Your task to perform on an android device: Show me the alarms in the clock app Image 0: 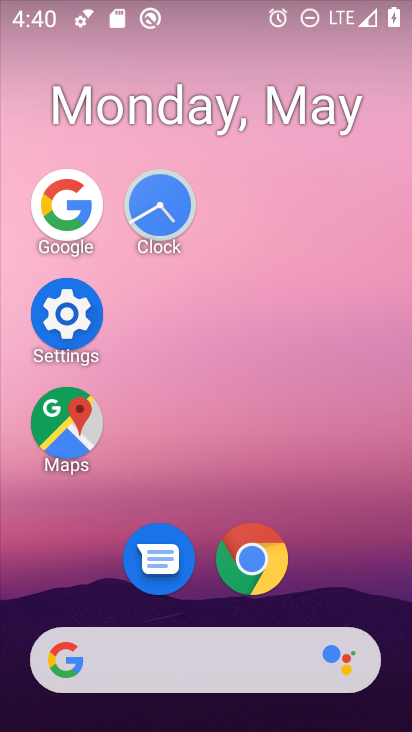
Step 0: click (170, 210)
Your task to perform on an android device: Show me the alarms in the clock app Image 1: 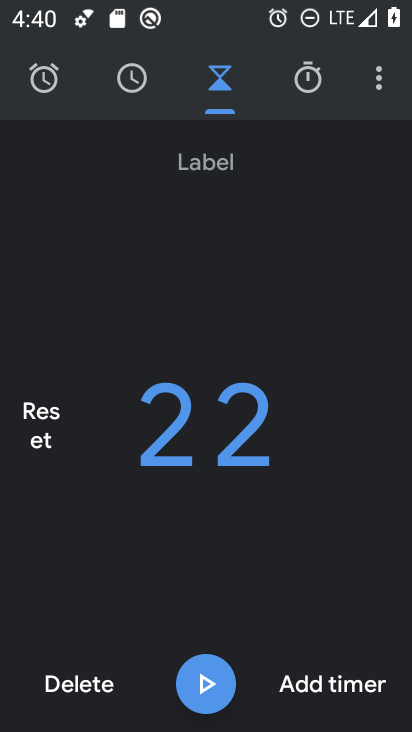
Step 1: click (60, 79)
Your task to perform on an android device: Show me the alarms in the clock app Image 2: 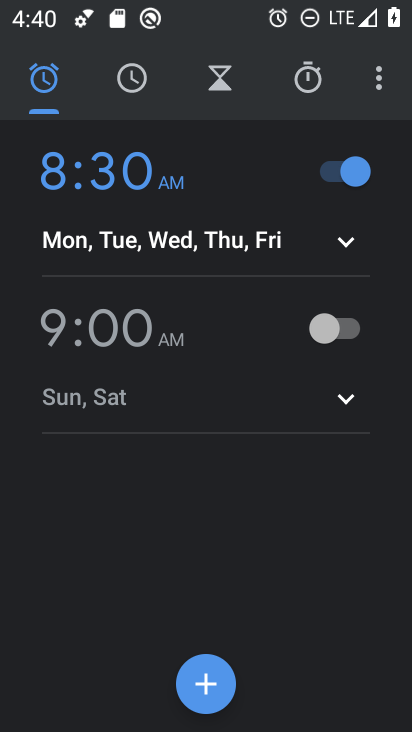
Step 2: task complete